Your task to perform on an android device: turn off airplane mode Image 0: 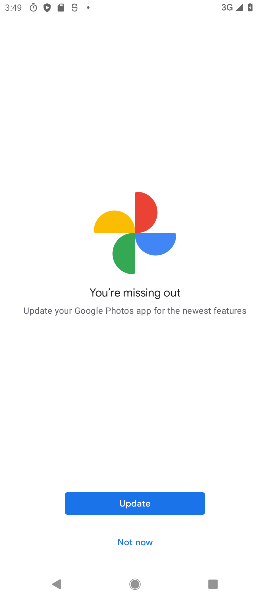
Step 0: press home button
Your task to perform on an android device: turn off airplane mode Image 1: 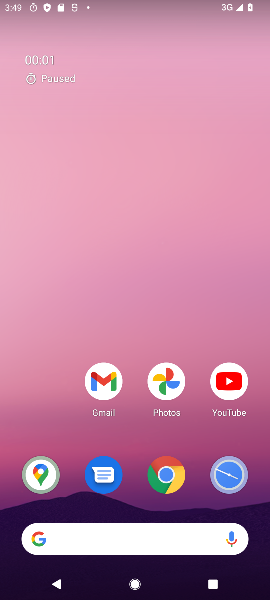
Step 1: drag from (46, 558) to (177, 98)
Your task to perform on an android device: turn off airplane mode Image 2: 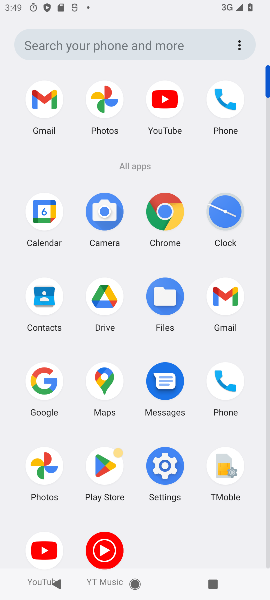
Step 2: click (163, 469)
Your task to perform on an android device: turn off airplane mode Image 3: 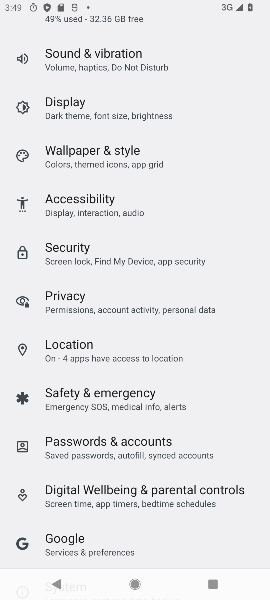
Step 3: drag from (214, 98) to (75, 580)
Your task to perform on an android device: turn off airplane mode Image 4: 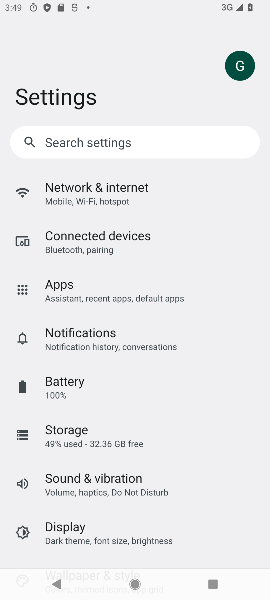
Step 4: click (135, 194)
Your task to perform on an android device: turn off airplane mode Image 5: 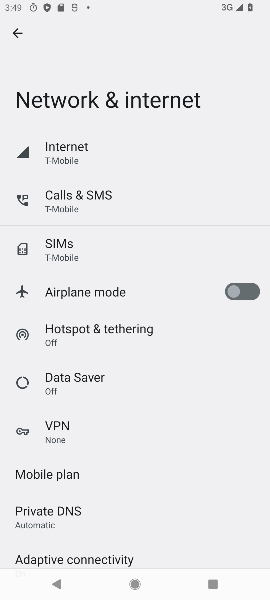
Step 5: task complete